Your task to perform on an android device: Open Youtube and go to the subscriptions tab Image 0: 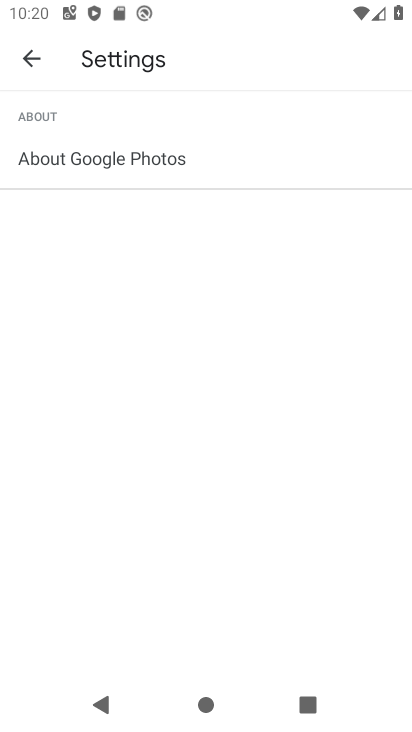
Step 0: press home button
Your task to perform on an android device: Open Youtube and go to the subscriptions tab Image 1: 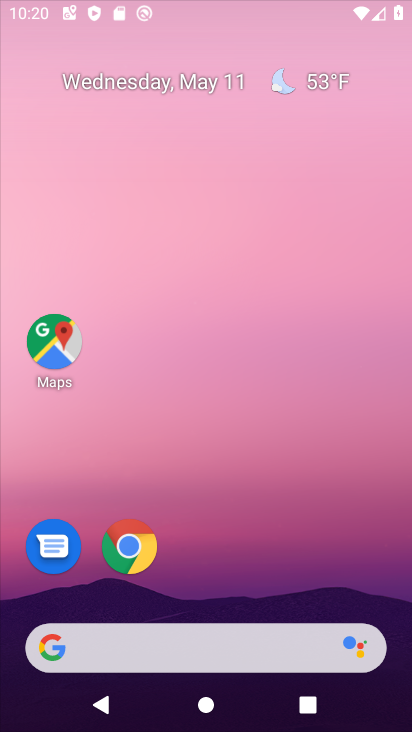
Step 1: drag from (393, 671) to (358, 89)
Your task to perform on an android device: Open Youtube and go to the subscriptions tab Image 2: 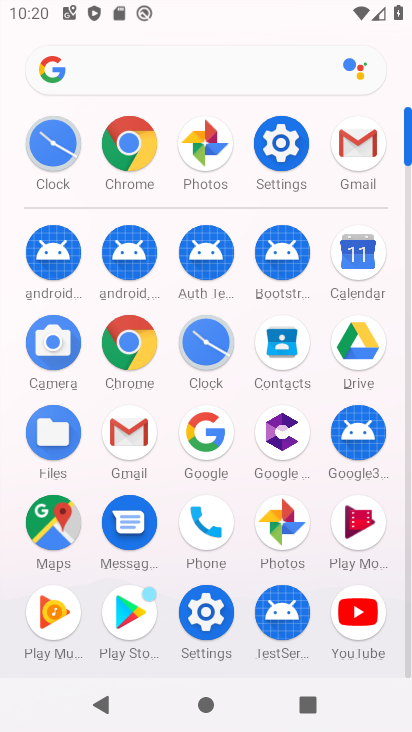
Step 2: click (360, 605)
Your task to perform on an android device: Open Youtube and go to the subscriptions tab Image 3: 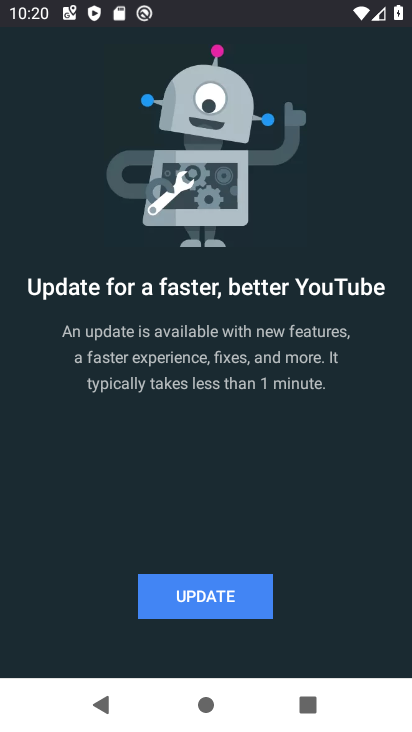
Step 3: drag from (198, 593) to (163, 593)
Your task to perform on an android device: Open Youtube and go to the subscriptions tab Image 4: 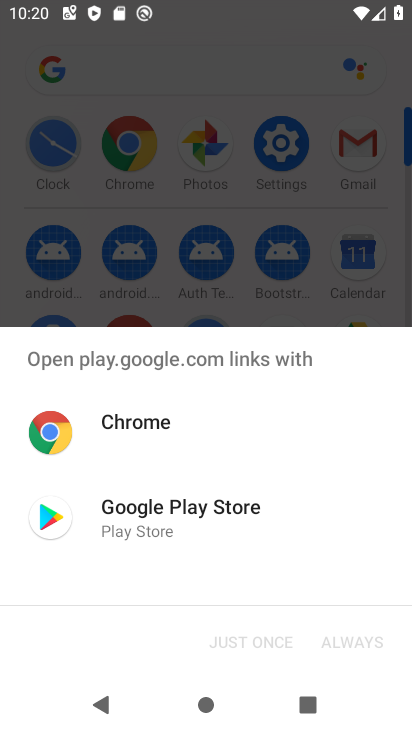
Step 4: click (125, 510)
Your task to perform on an android device: Open Youtube and go to the subscriptions tab Image 5: 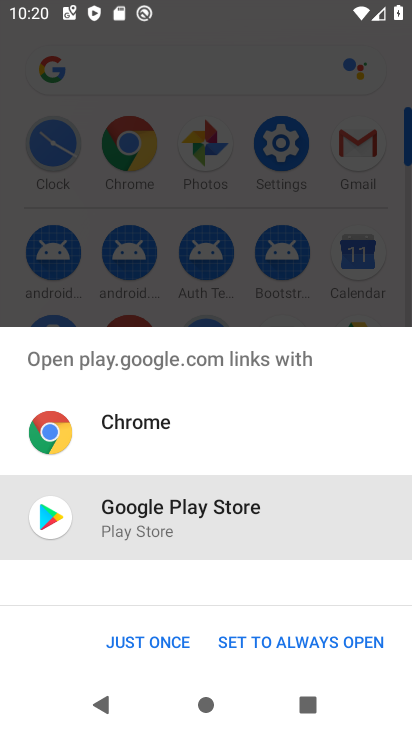
Step 5: click (180, 653)
Your task to perform on an android device: Open Youtube and go to the subscriptions tab Image 6: 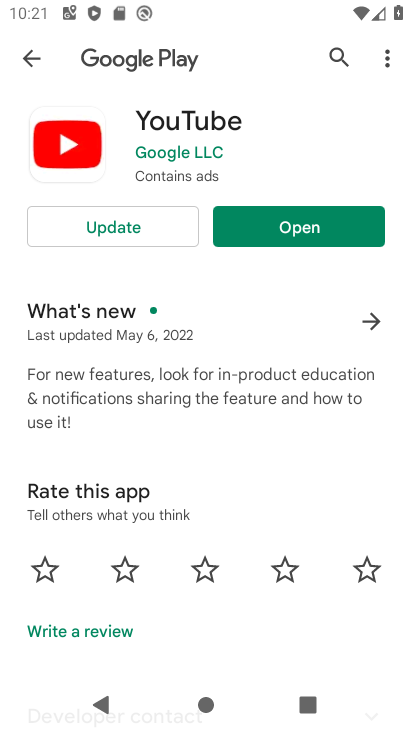
Step 6: click (160, 217)
Your task to perform on an android device: Open Youtube and go to the subscriptions tab Image 7: 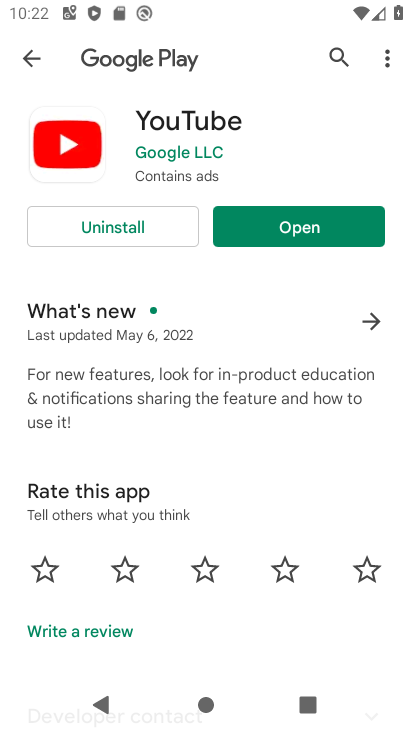
Step 7: click (267, 237)
Your task to perform on an android device: Open Youtube and go to the subscriptions tab Image 8: 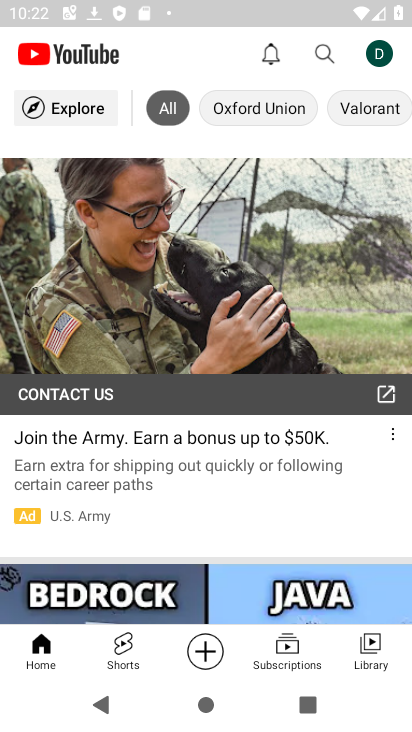
Step 8: click (292, 632)
Your task to perform on an android device: Open Youtube and go to the subscriptions tab Image 9: 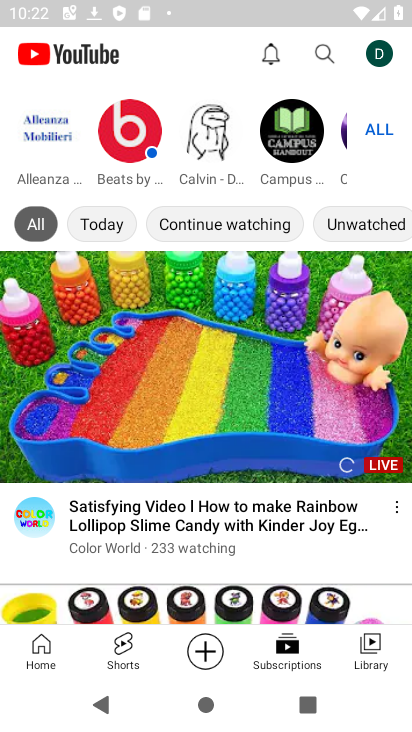
Step 9: task complete